Your task to perform on an android device: allow notifications from all sites in the chrome app Image 0: 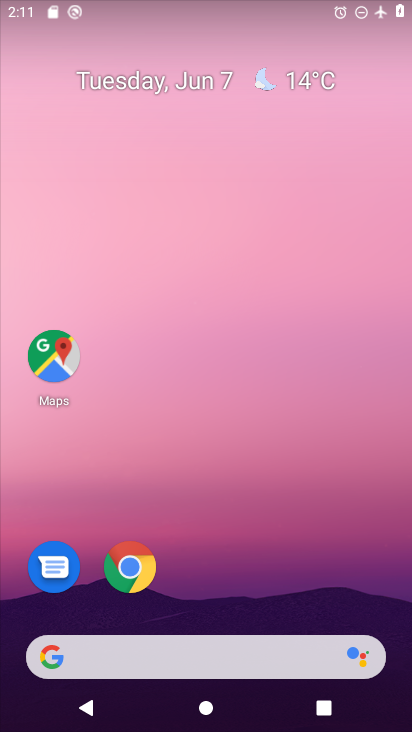
Step 0: drag from (273, 527) to (406, 55)
Your task to perform on an android device: allow notifications from all sites in the chrome app Image 1: 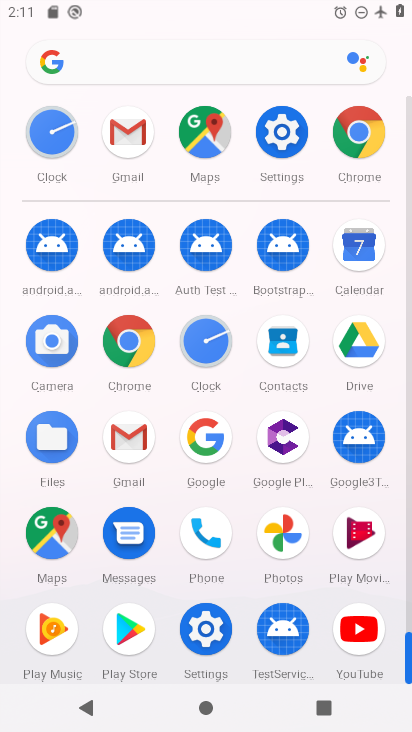
Step 1: click (370, 114)
Your task to perform on an android device: allow notifications from all sites in the chrome app Image 2: 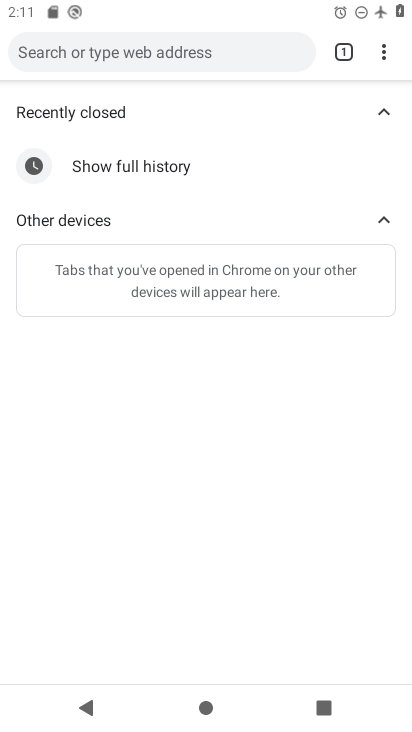
Step 2: drag from (396, 51) to (200, 445)
Your task to perform on an android device: allow notifications from all sites in the chrome app Image 3: 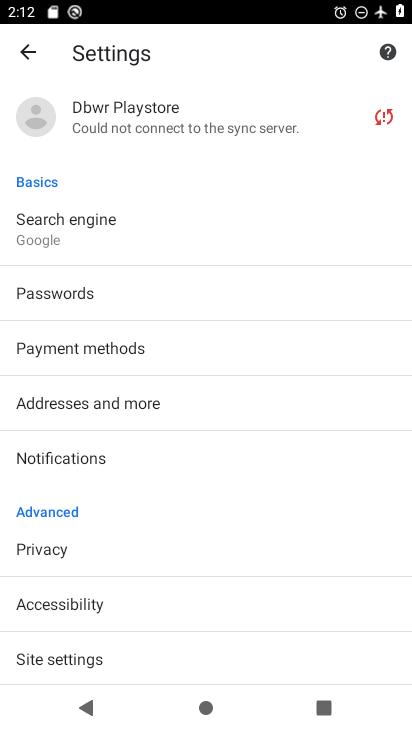
Step 3: drag from (179, 662) to (214, 175)
Your task to perform on an android device: allow notifications from all sites in the chrome app Image 4: 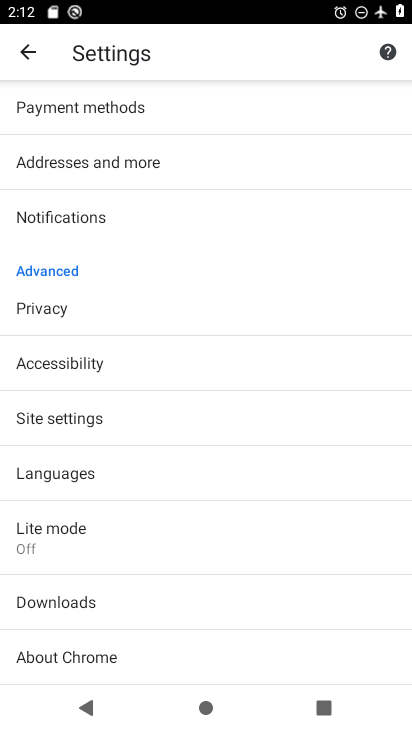
Step 4: click (80, 419)
Your task to perform on an android device: allow notifications from all sites in the chrome app Image 5: 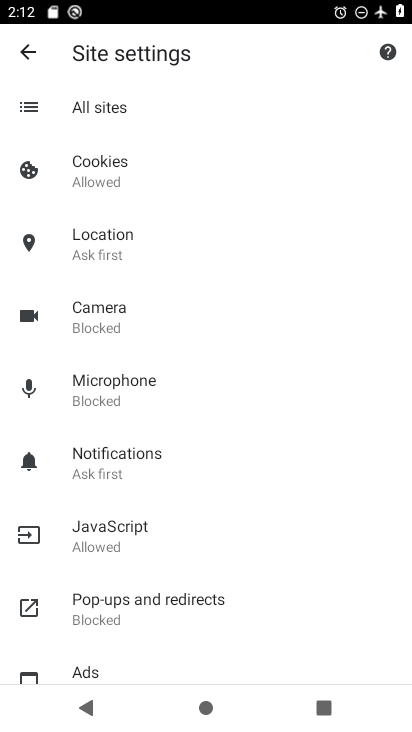
Step 5: click (86, 455)
Your task to perform on an android device: allow notifications from all sites in the chrome app Image 6: 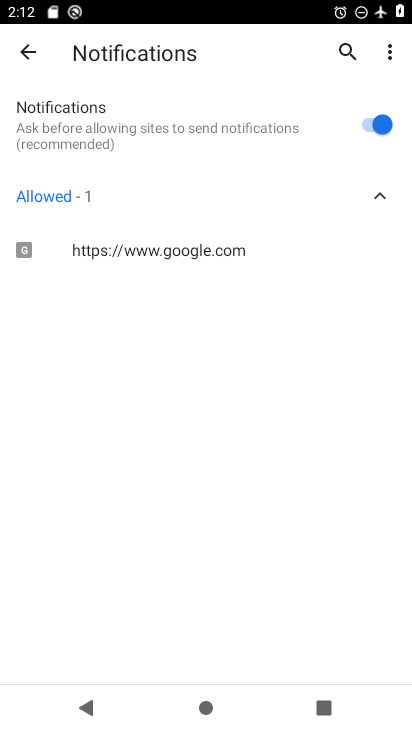
Step 6: task complete